Your task to perform on an android device: toggle sleep mode Image 0: 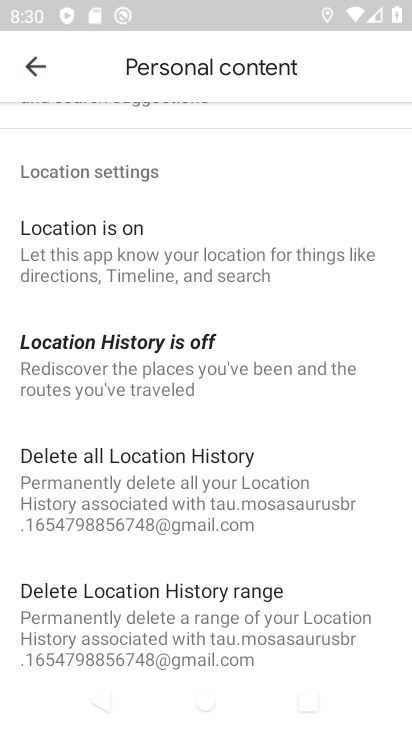
Step 0: press home button
Your task to perform on an android device: toggle sleep mode Image 1: 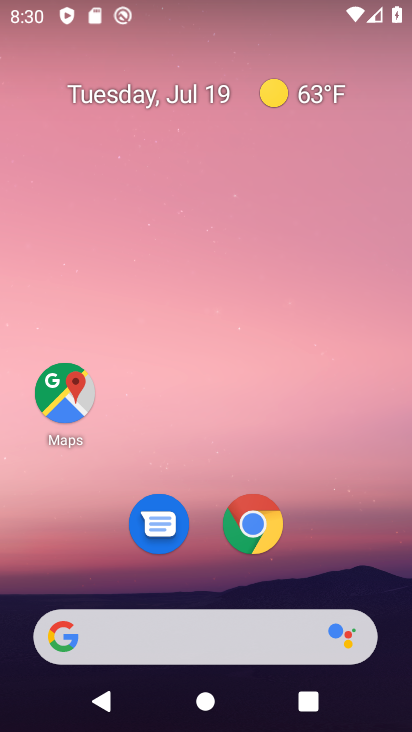
Step 1: drag from (152, 645) to (313, 112)
Your task to perform on an android device: toggle sleep mode Image 2: 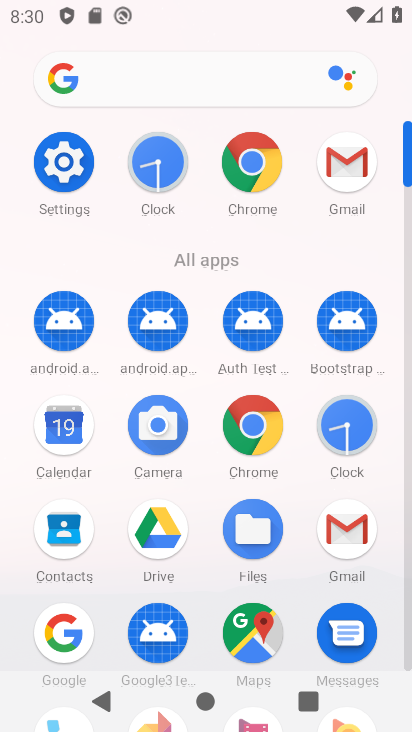
Step 2: click (64, 163)
Your task to perform on an android device: toggle sleep mode Image 3: 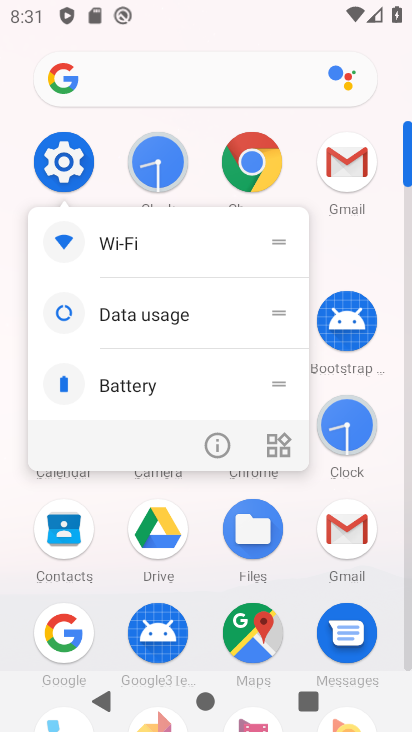
Step 3: click (67, 149)
Your task to perform on an android device: toggle sleep mode Image 4: 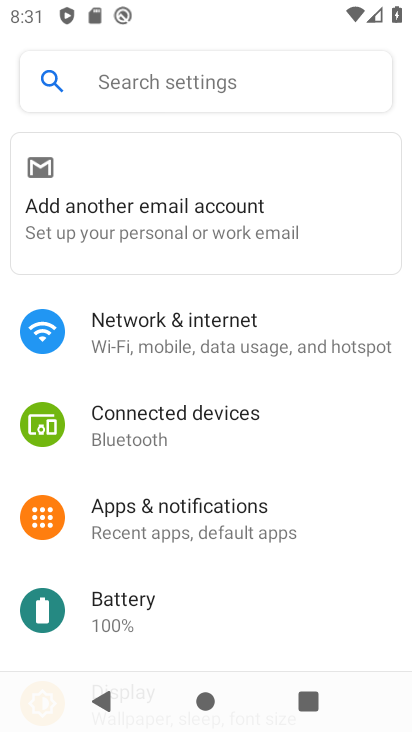
Step 4: drag from (318, 540) to (345, 282)
Your task to perform on an android device: toggle sleep mode Image 5: 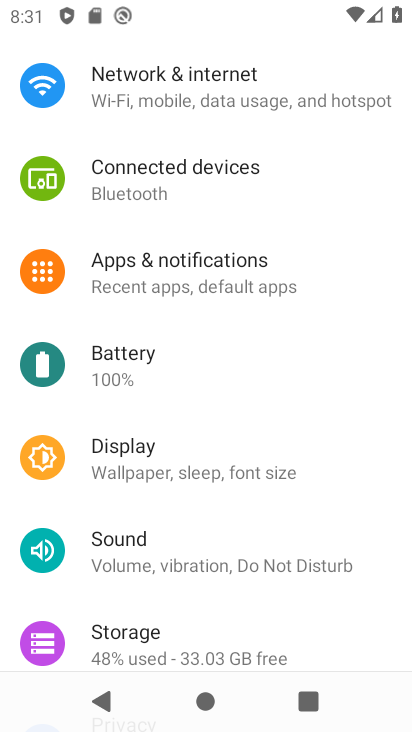
Step 5: click (178, 471)
Your task to perform on an android device: toggle sleep mode Image 6: 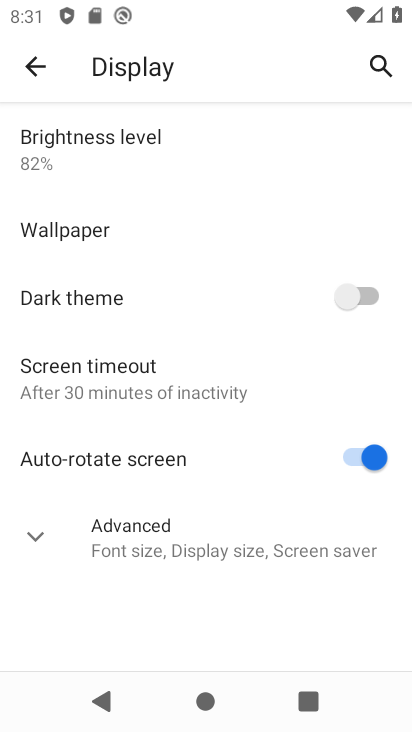
Step 6: task complete